Your task to perform on an android device: Go to CNN.com Image 0: 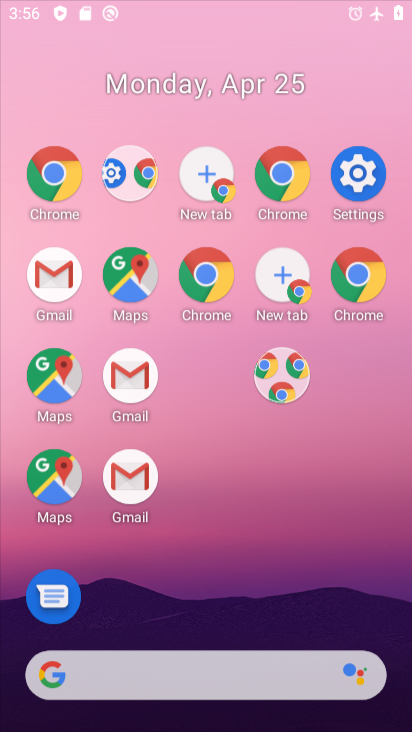
Step 0: drag from (250, 711) to (170, 55)
Your task to perform on an android device: Go to CNN.com Image 1: 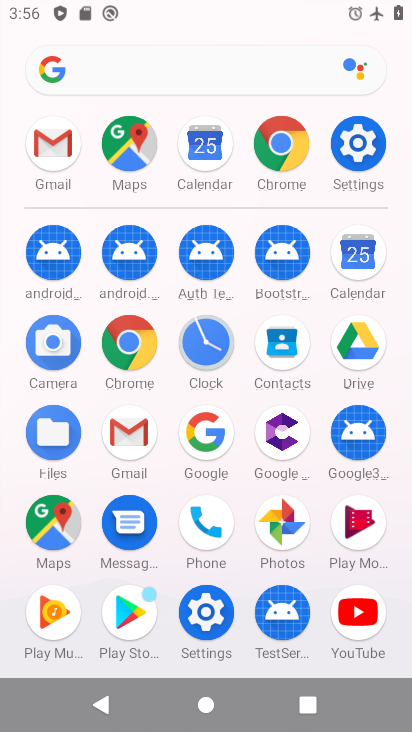
Step 1: click (289, 155)
Your task to perform on an android device: Go to CNN.com Image 2: 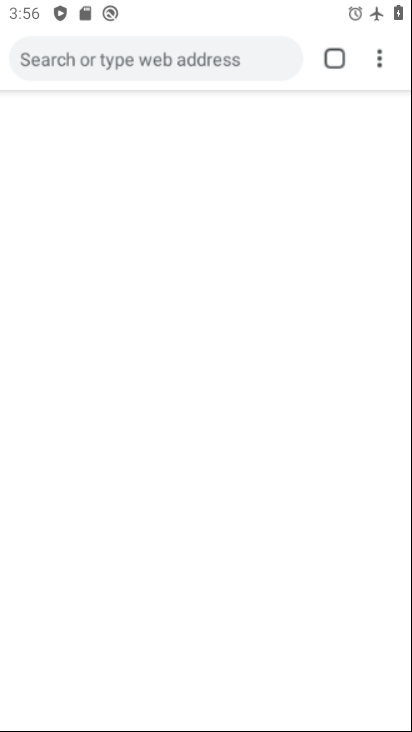
Step 2: click (284, 140)
Your task to perform on an android device: Go to CNN.com Image 3: 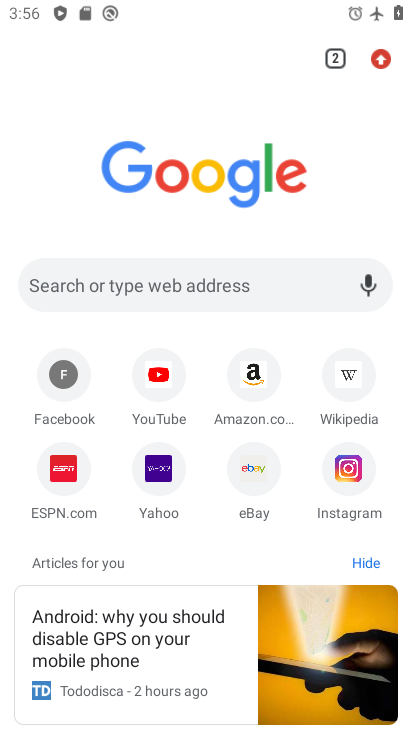
Step 3: click (44, 280)
Your task to perform on an android device: Go to CNN.com Image 4: 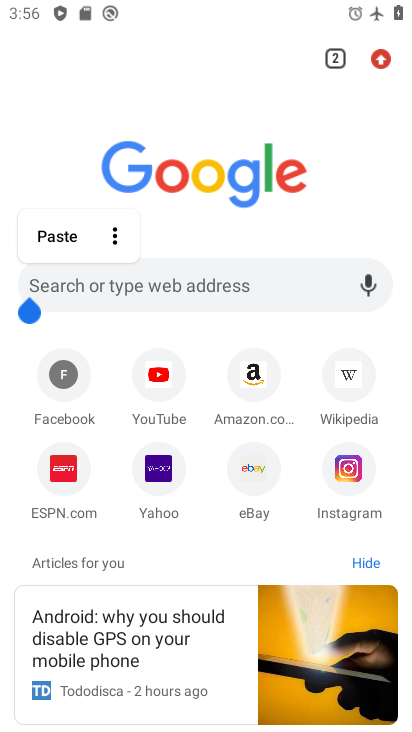
Step 4: click (93, 279)
Your task to perform on an android device: Go to CNN.com Image 5: 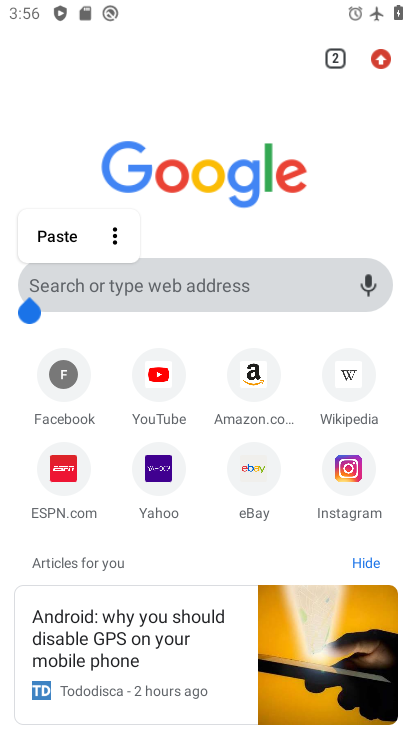
Step 5: click (103, 280)
Your task to perform on an android device: Go to CNN.com Image 6: 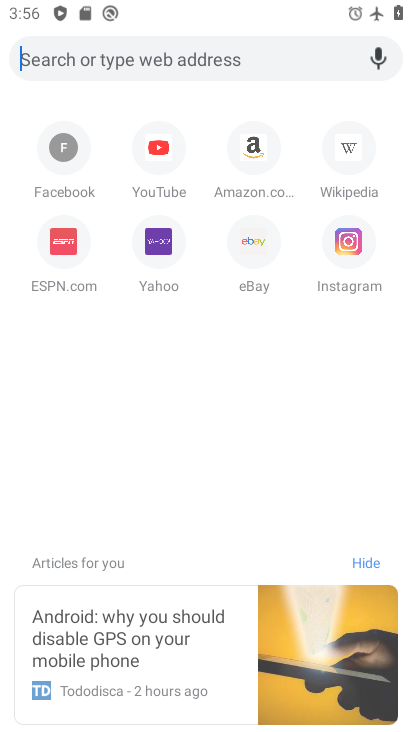
Step 6: click (105, 278)
Your task to perform on an android device: Go to CNN.com Image 7: 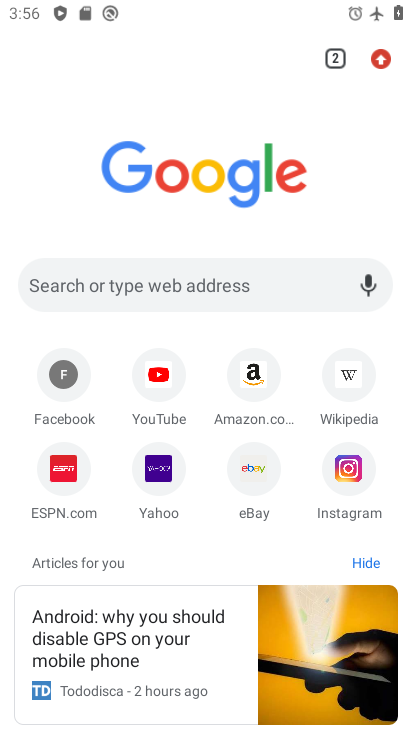
Step 7: click (124, 294)
Your task to perform on an android device: Go to CNN.com Image 8: 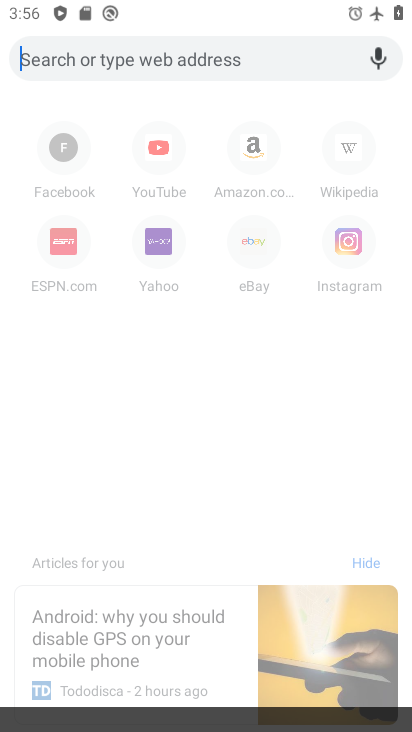
Step 8: click (123, 294)
Your task to perform on an android device: Go to CNN.com Image 9: 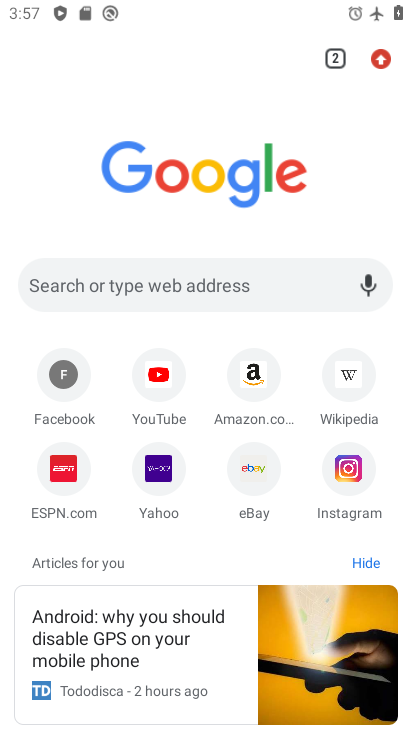
Step 9: click (95, 279)
Your task to perform on an android device: Go to CNN.com Image 10: 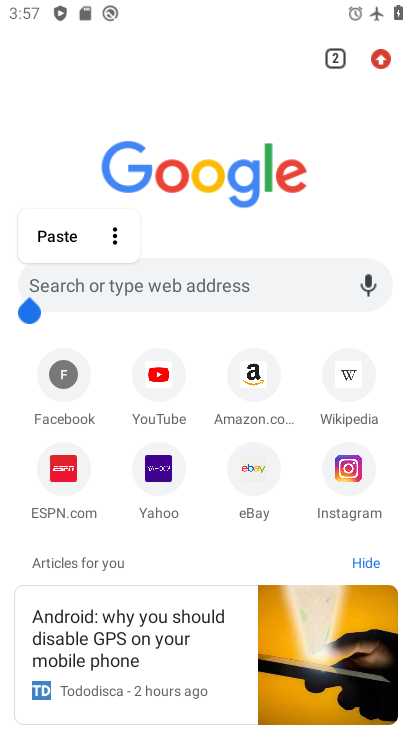
Step 10: click (136, 291)
Your task to perform on an android device: Go to CNN.com Image 11: 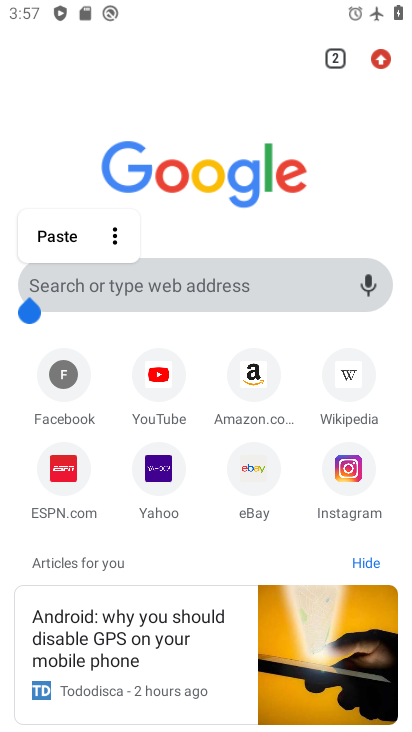
Step 11: click (136, 291)
Your task to perform on an android device: Go to CNN.com Image 12: 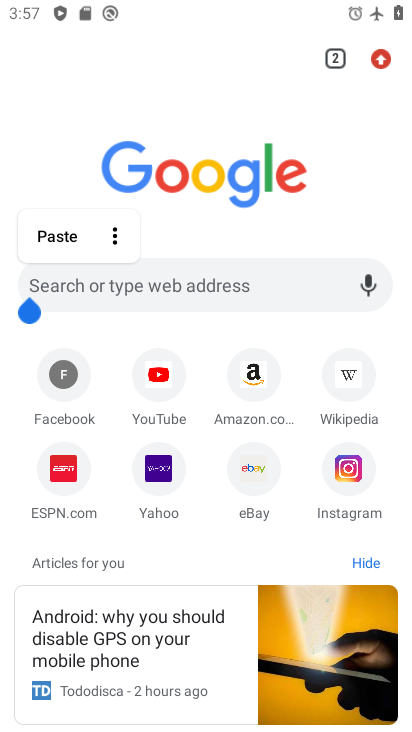
Step 12: click (124, 291)
Your task to perform on an android device: Go to CNN.com Image 13: 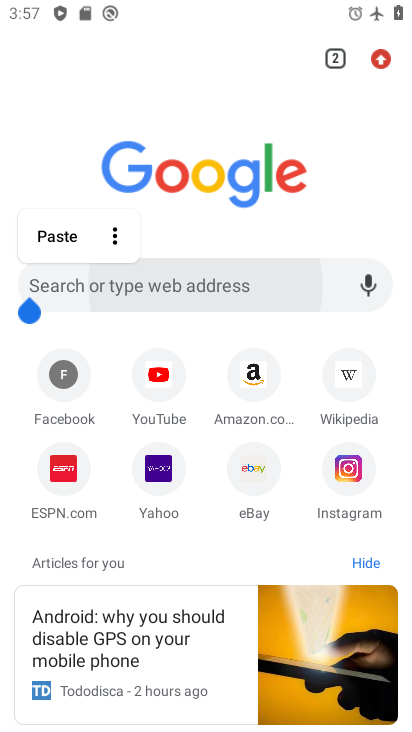
Step 13: click (124, 291)
Your task to perform on an android device: Go to CNN.com Image 14: 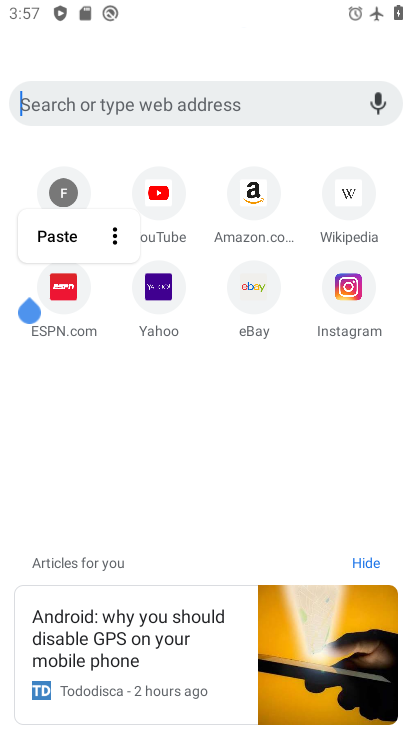
Step 14: click (124, 291)
Your task to perform on an android device: Go to CNN.com Image 15: 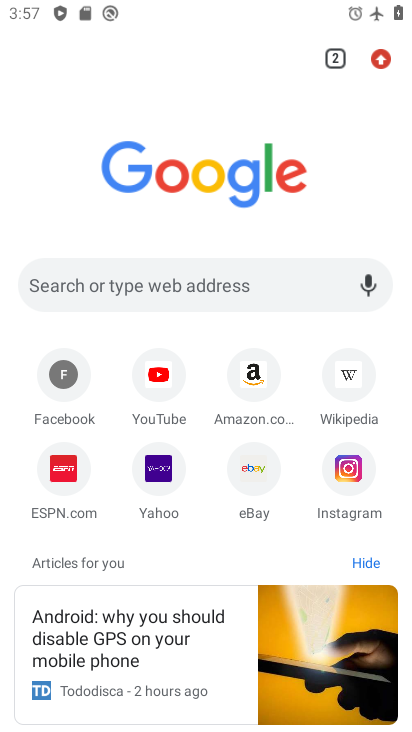
Step 15: click (116, 273)
Your task to perform on an android device: Go to CNN.com Image 16: 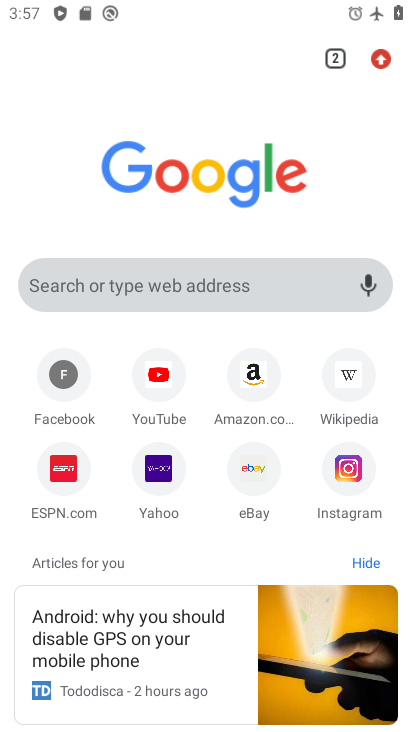
Step 16: click (116, 276)
Your task to perform on an android device: Go to CNN.com Image 17: 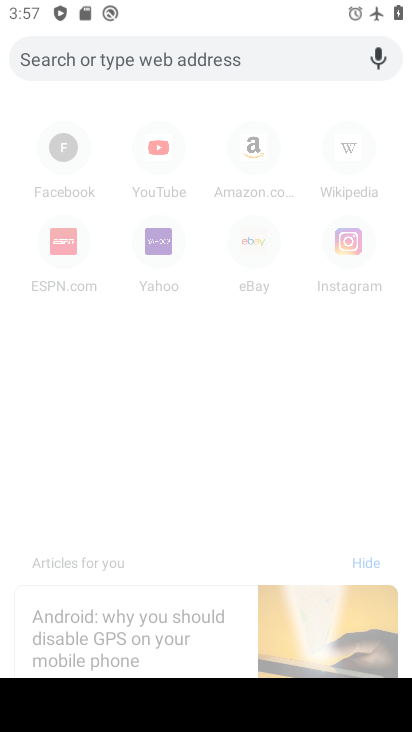
Step 17: type "www.cnn.com"
Your task to perform on an android device: Go to CNN.com Image 18: 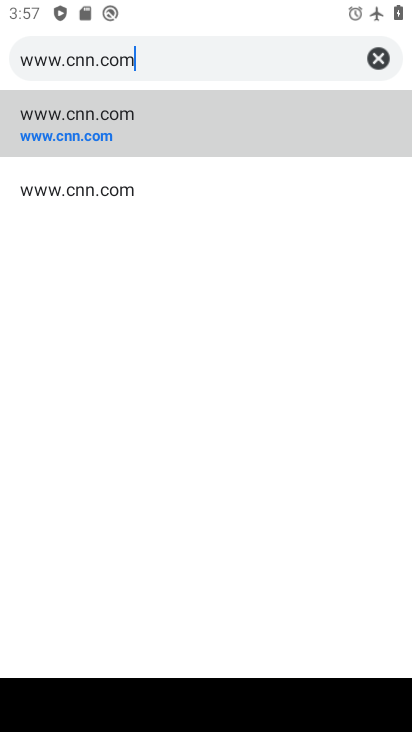
Step 18: click (74, 131)
Your task to perform on an android device: Go to CNN.com Image 19: 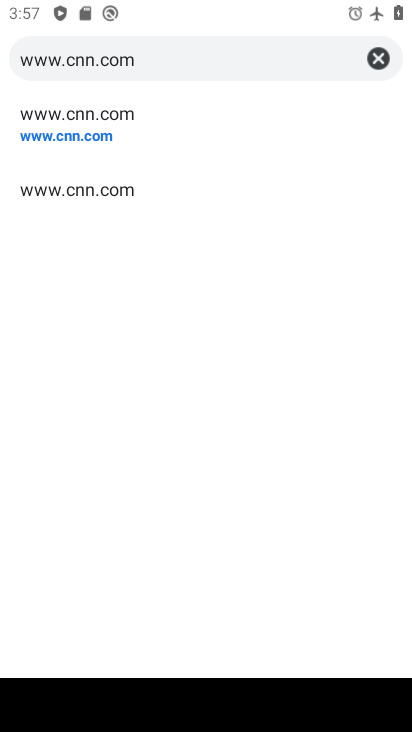
Step 19: click (66, 122)
Your task to perform on an android device: Go to CNN.com Image 20: 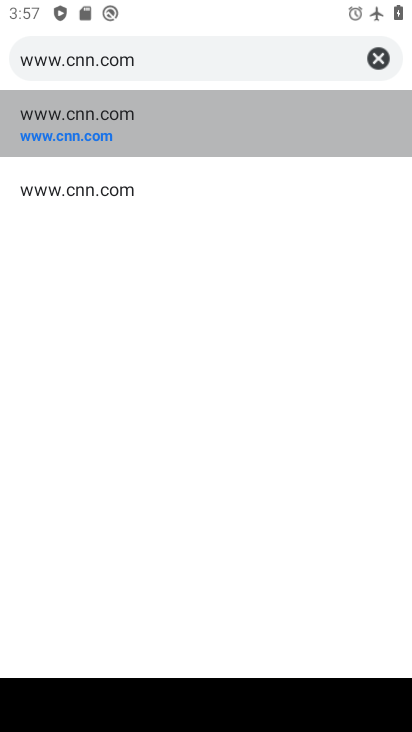
Step 20: click (66, 122)
Your task to perform on an android device: Go to CNN.com Image 21: 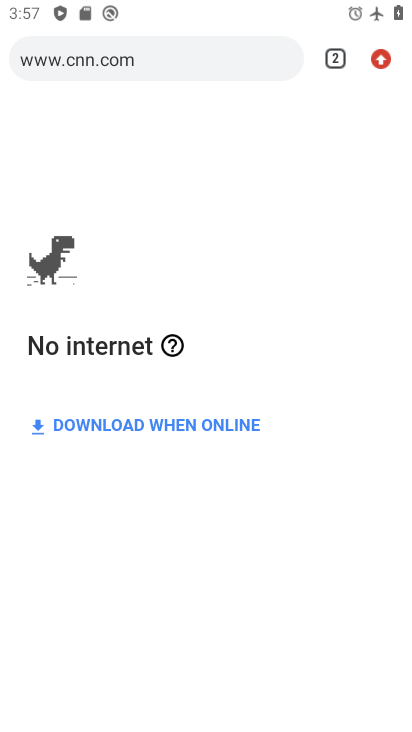
Step 21: task complete